Your task to perform on an android device: When is my next appointment? Image 0: 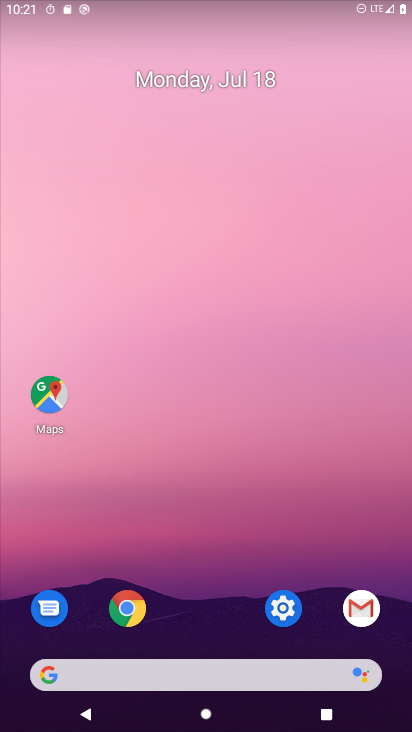
Step 0: drag from (272, 674) to (202, 93)
Your task to perform on an android device: When is my next appointment? Image 1: 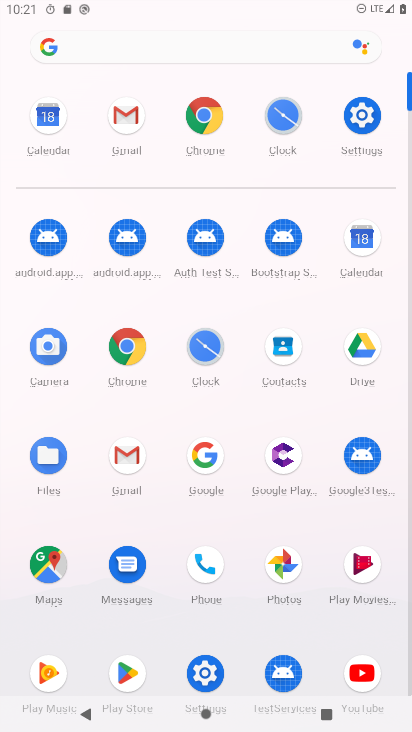
Step 1: click (359, 251)
Your task to perform on an android device: When is my next appointment? Image 2: 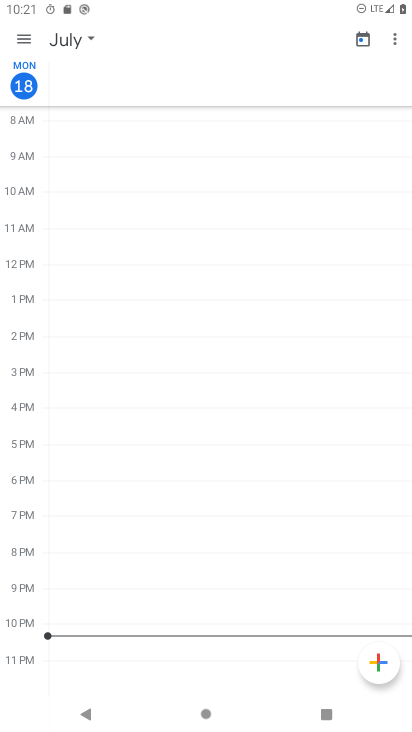
Step 2: click (17, 39)
Your task to perform on an android device: When is my next appointment? Image 3: 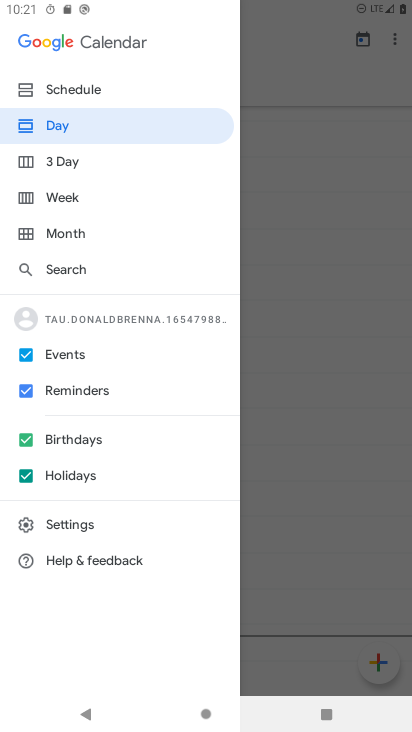
Step 3: click (90, 236)
Your task to perform on an android device: When is my next appointment? Image 4: 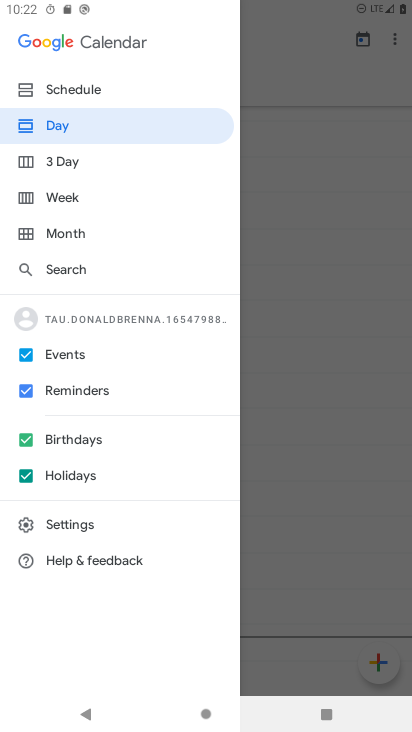
Step 4: click (77, 228)
Your task to perform on an android device: When is my next appointment? Image 5: 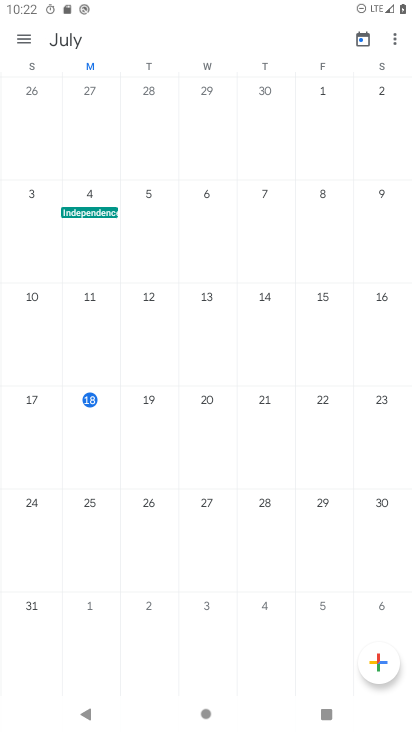
Step 5: click (94, 406)
Your task to perform on an android device: When is my next appointment? Image 6: 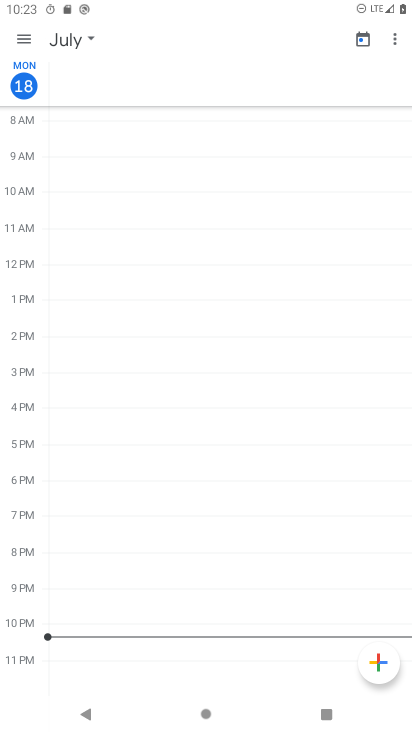
Step 6: task complete